Your task to perform on an android device: toggle notification dots Image 0: 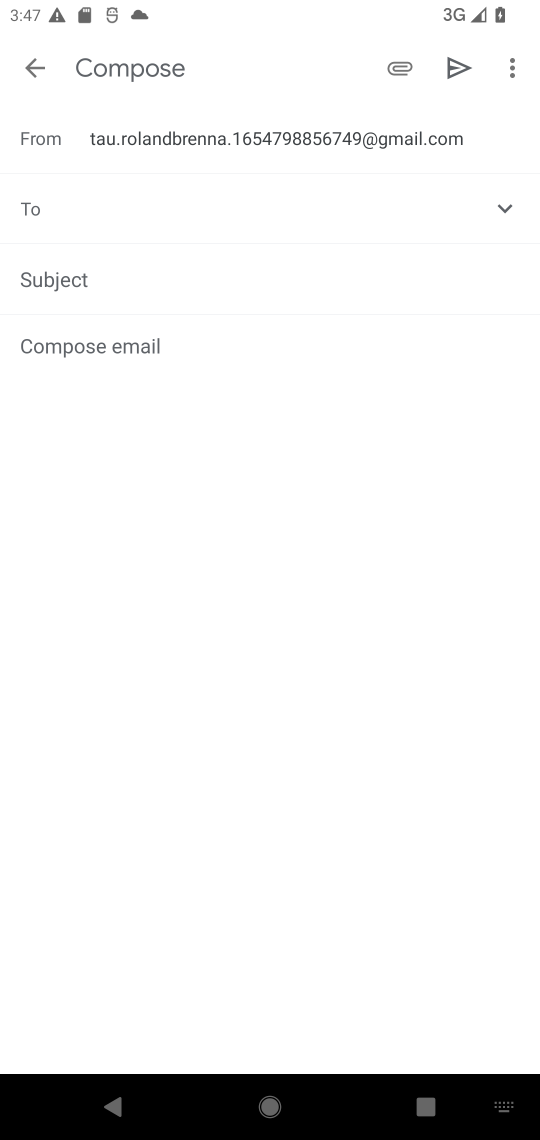
Step 0: press home button
Your task to perform on an android device: toggle notification dots Image 1: 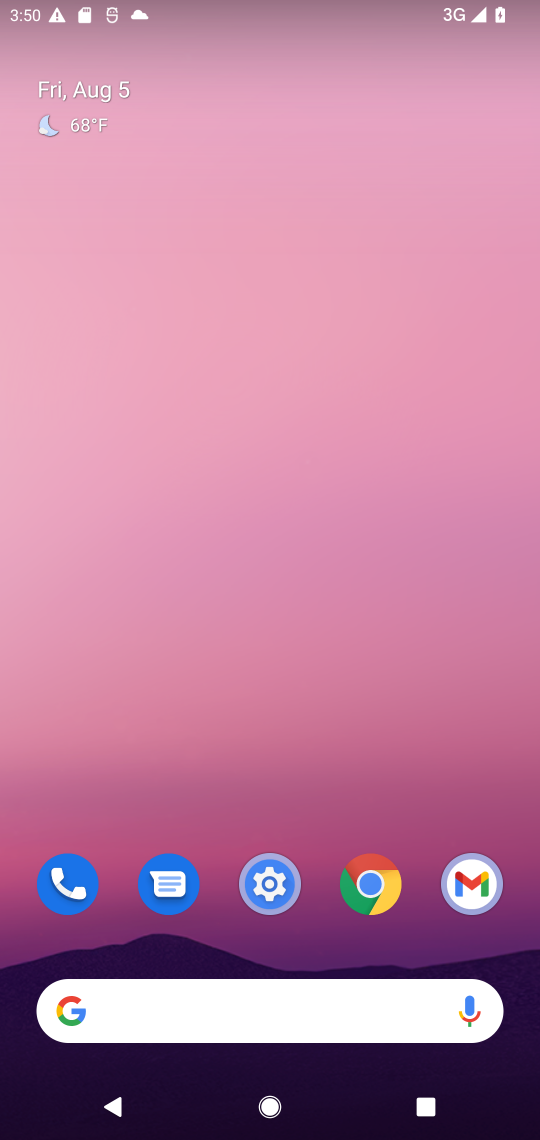
Step 1: drag from (423, 935) to (307, 103)
Your task to perform on an android device: toggle notification dots Image 2: 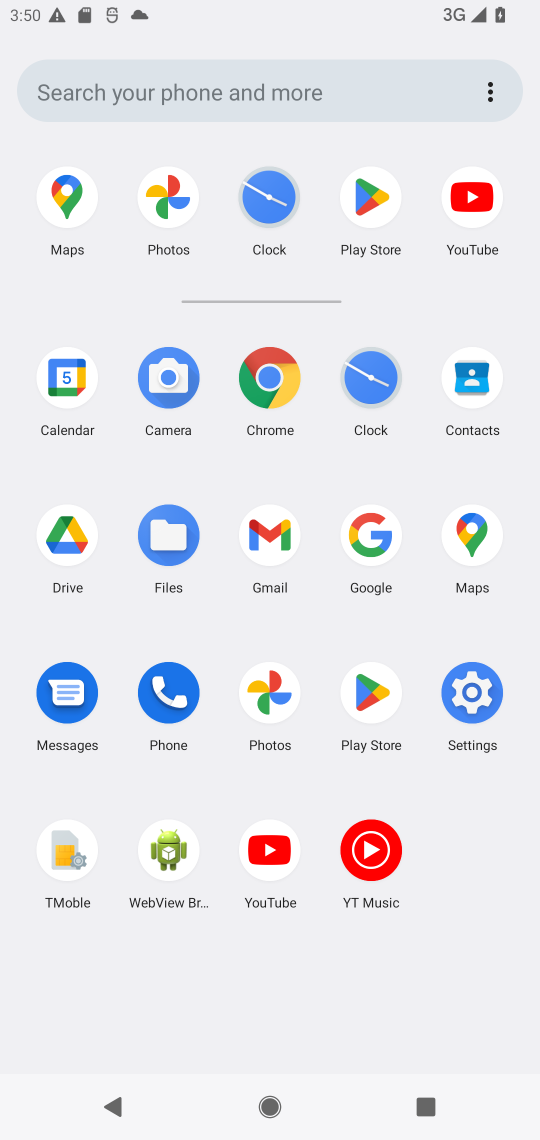
Step 2: click (480, 714)
Your task to perform on an android device: toggle notification dots Image 3: 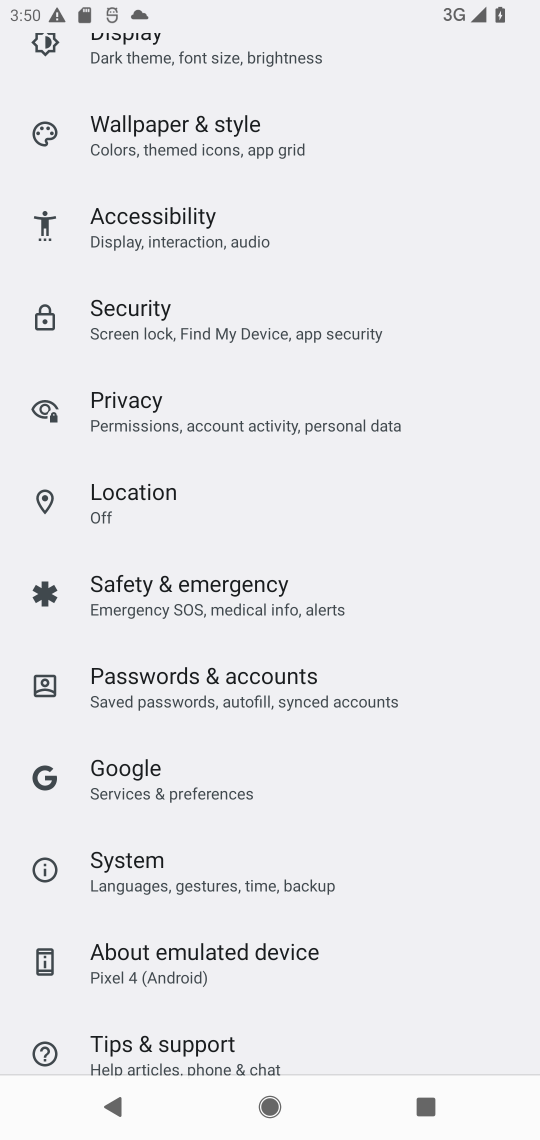
Step 3: drag from (290, 905) to (218, 180)
Your task to perform on an android device: toggle notification dots Image 4: 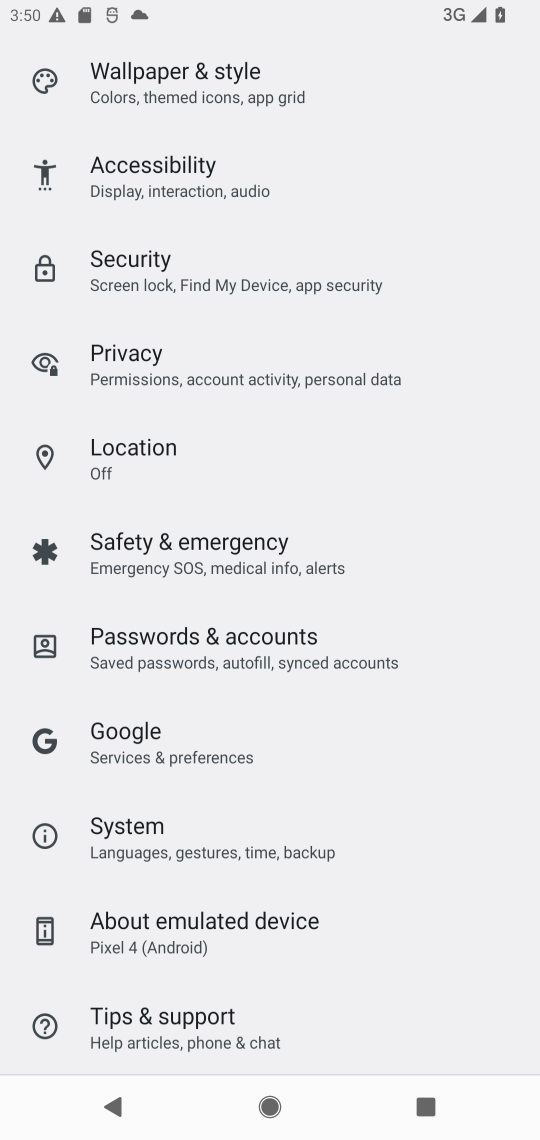
Step 4: drag from (218, 180) to (261, 1011)
Your task to perform on an android device: toggle notification dots Image 5: 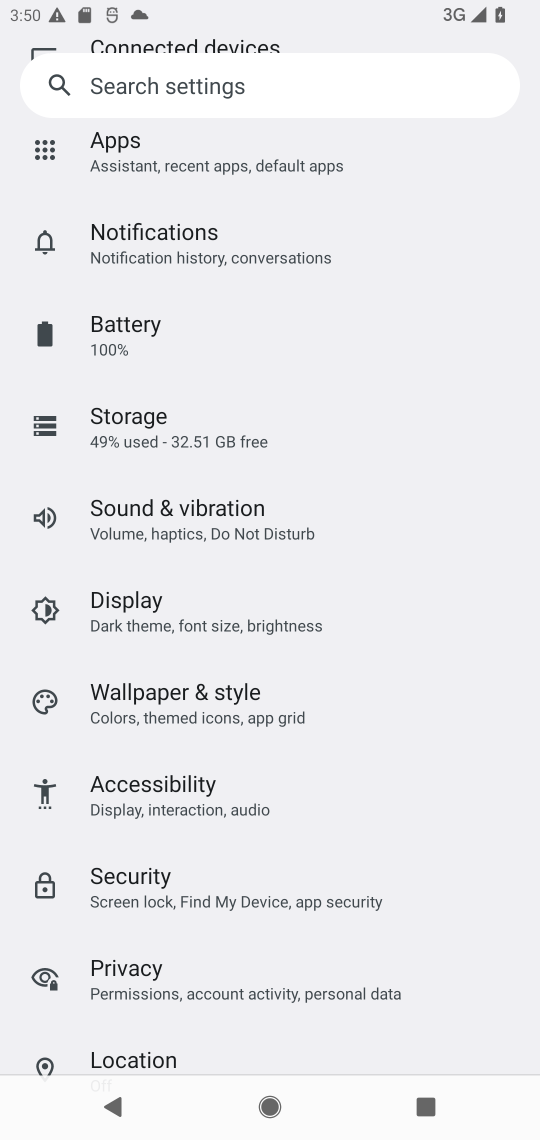
Step 5: click (176, 239)
Your task to perform on an android device: toggle notification dots Image 6: 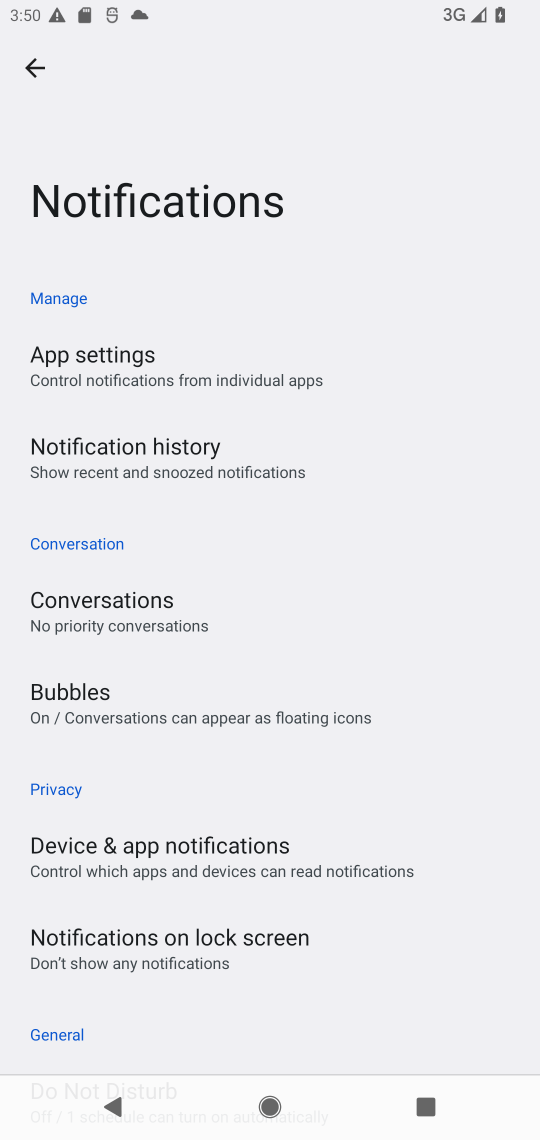
Step 6: drag from (199, 982) to (161, 108)
Your task to perform on an android device: toggle notification dots Image 7: 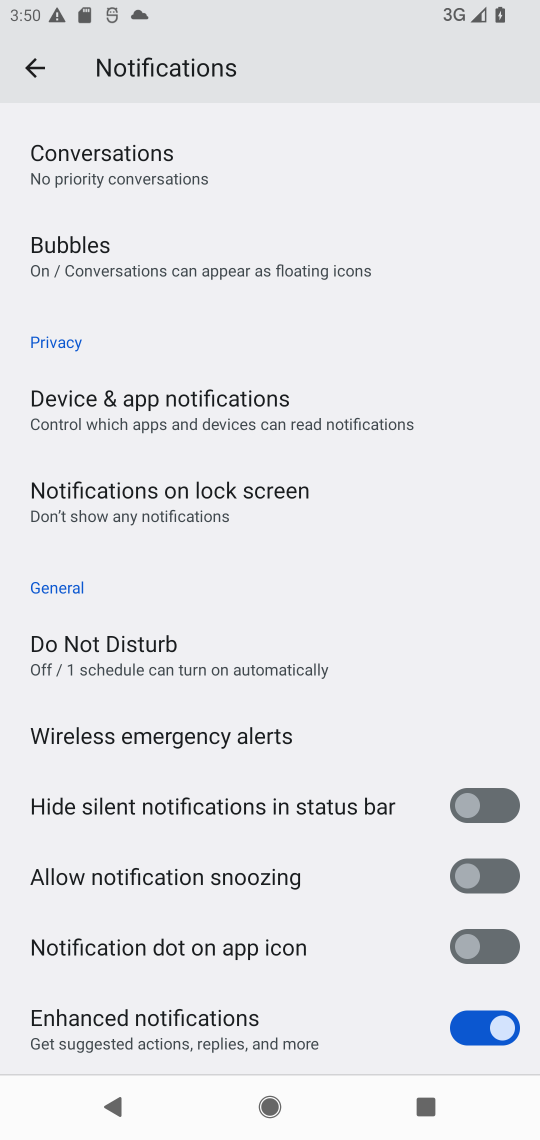
Step 7: click (453, 949)
Your task to perform on an android device: toggle notification dots Image 8: 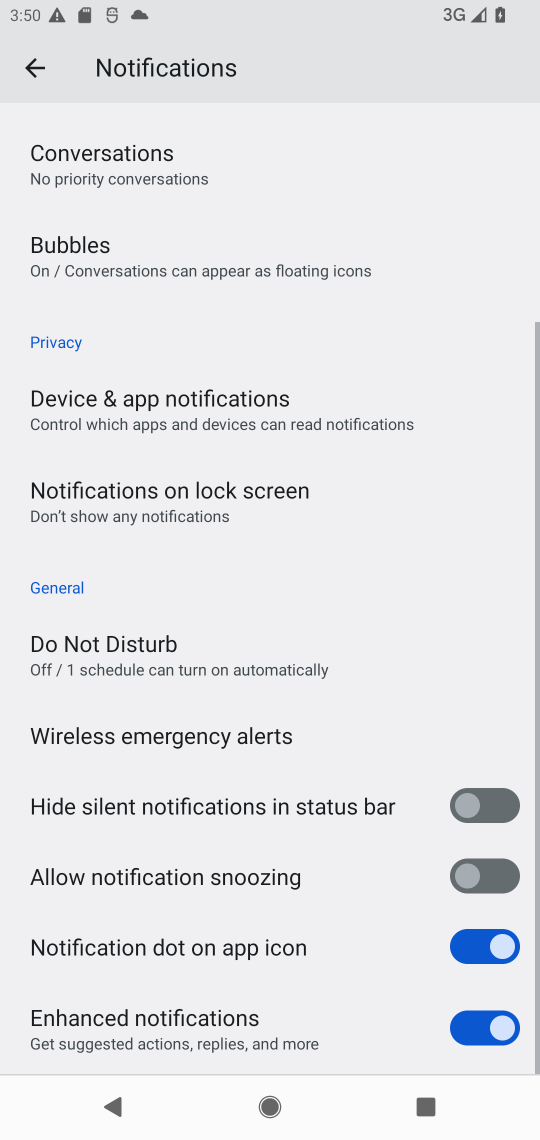
Step 8: task complete